Your task to perform on an android device: See recent photos Image 0: 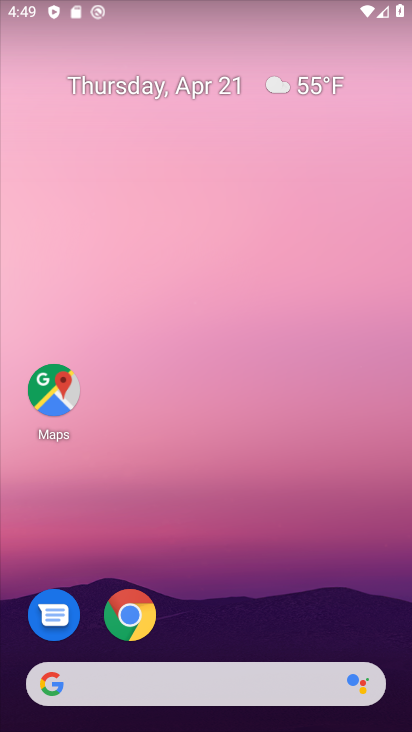
Step 0: drag from (244, 578) to (220, 80)
Your task to perform on an android device: See recent photos Image 1: 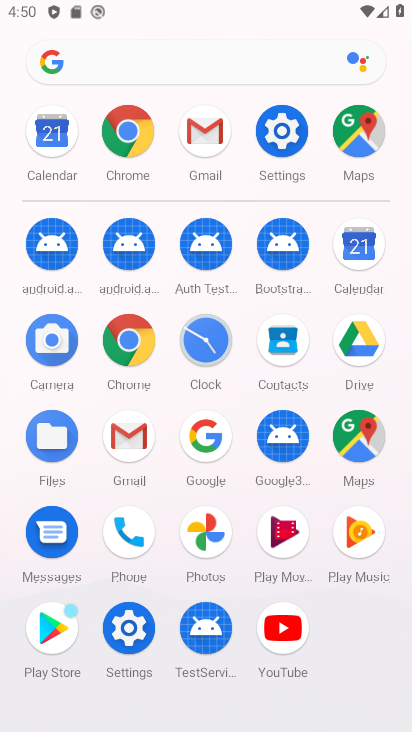
Step 1: click (205, 529)
Your task to perform on an android device: See recent photos Image 2: 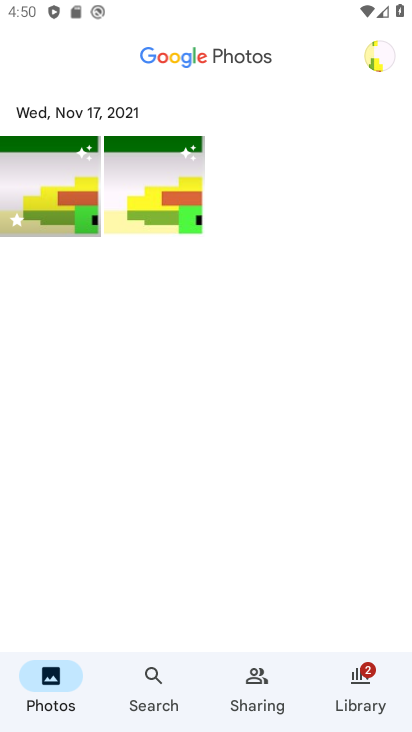
Step 2: task complete